Your task to perform on an android device: Open calendar and show me the second week of next month Image 0: 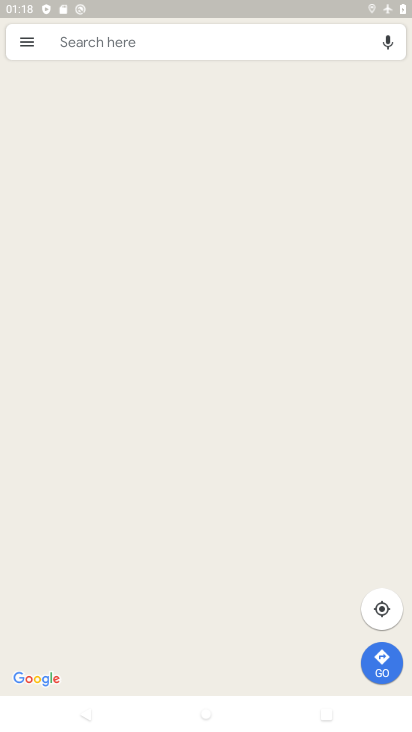
Step 0: press home button
Your task to perform on an android device: Open calendar and show me the second week of next month Image 1: 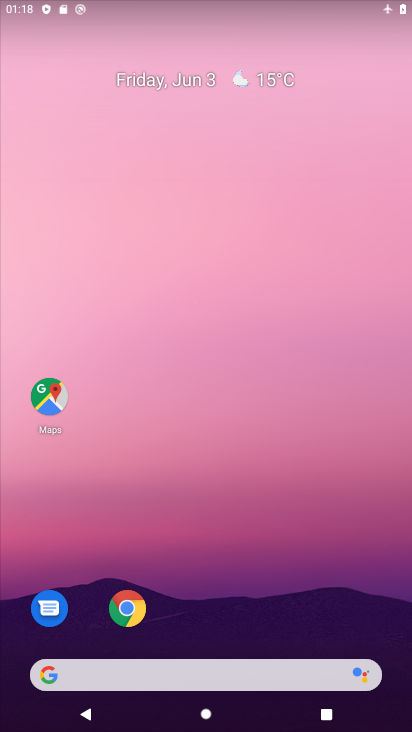
Step 1: drag from (286, 563) to (176, 93)
Your task to perform on an android device: Open calendar and show me the second week of next month Image 2: 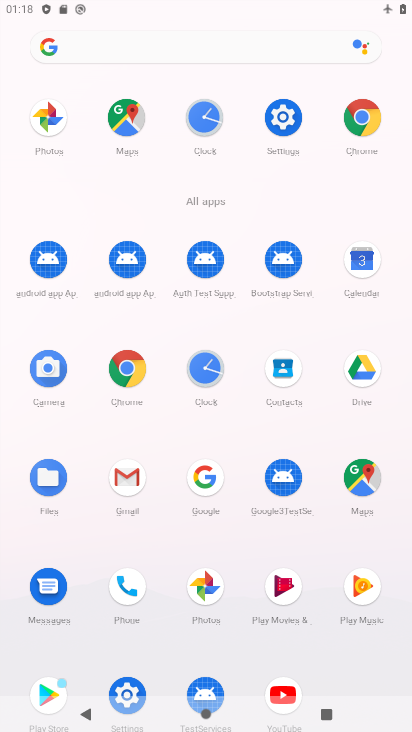
Step 2: click (365, 262)
Your task to perform on an android device: Open calendar and show me the second week of next month Image 3: 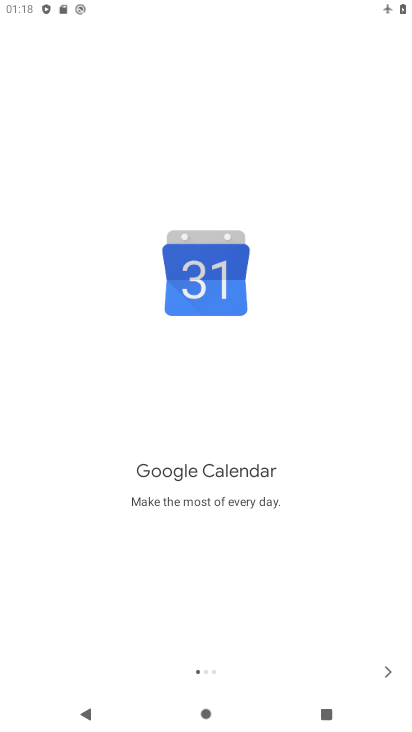
Step 3: click (377, 671)
Your task to perform on an android device: Open calendar and show me the second week of next month Image 4: 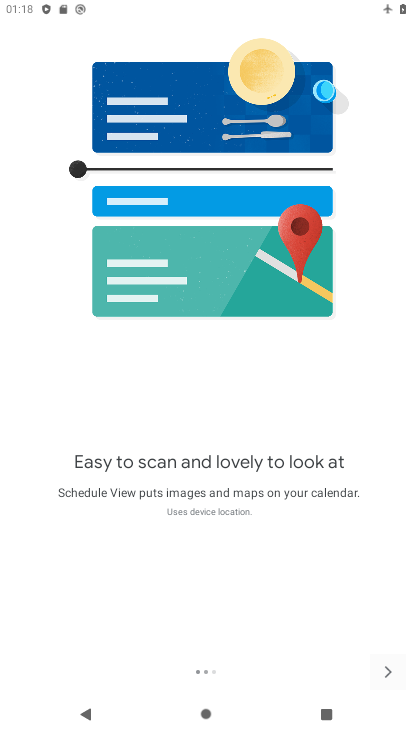
Step 4: click (377, 671)
Your task to perform on an android device: Open calendar and show me the second week of next month Image 5: 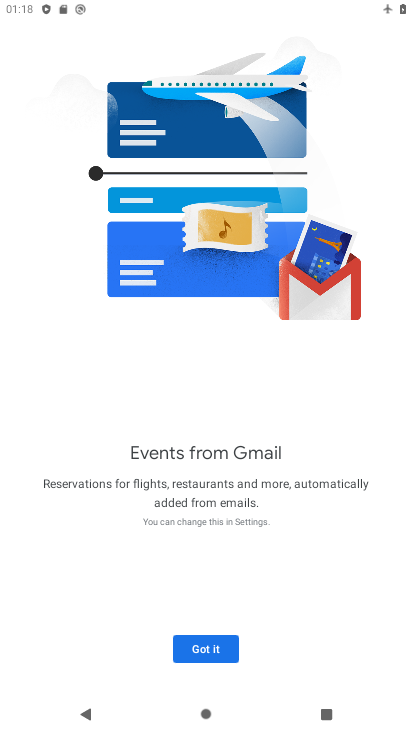
Step 5: click (209, 639)
Your task to perform on an android device: Open calendar and show me the second week of next month Image 6: 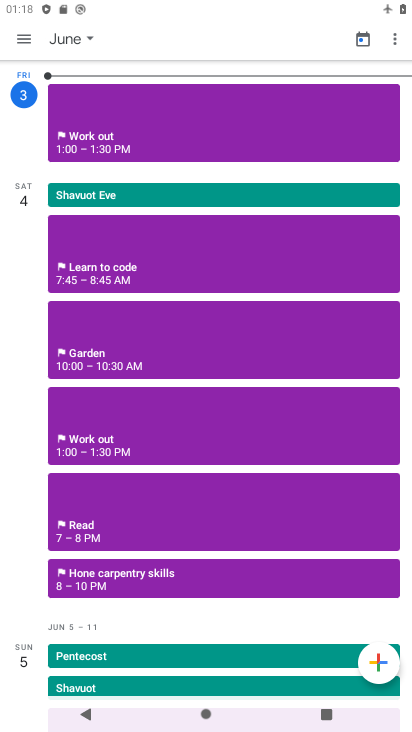
Step 6: click (87, 35)
Your task to perform on an android device: Open calendar and show me the second week of next month Image 7: 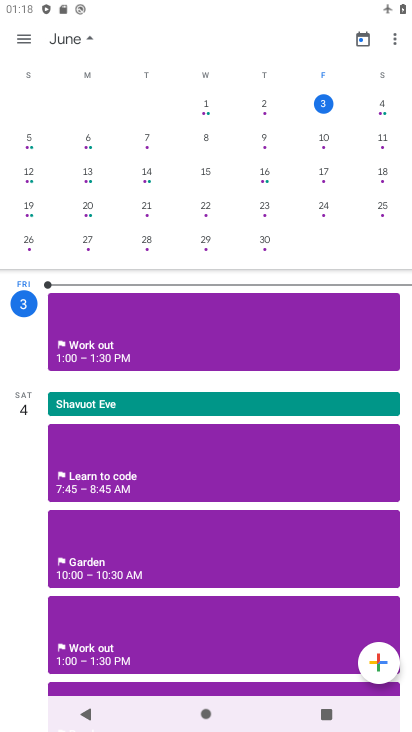
Step 7: drag from (370, 206) to (52, 168)
Your task to perform on an android device: Open calendar and show me the second week of next month Image 8: 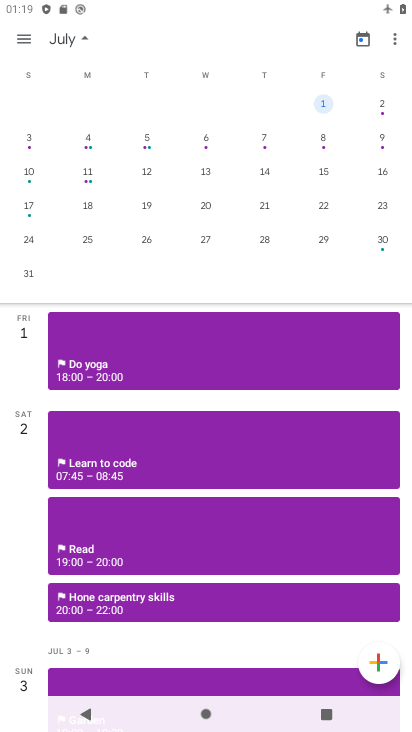
Step 8: click (27, 174)
Your task to perform on an android device: Open calendar and show me the second week of next month Image 9: 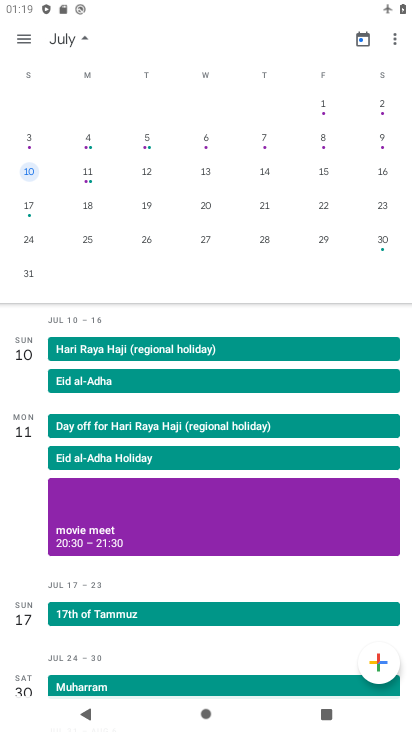
Step 9: click (27, 36)
Your task to perform on an android device: Open calendar and show me the second week of next month Image 10: 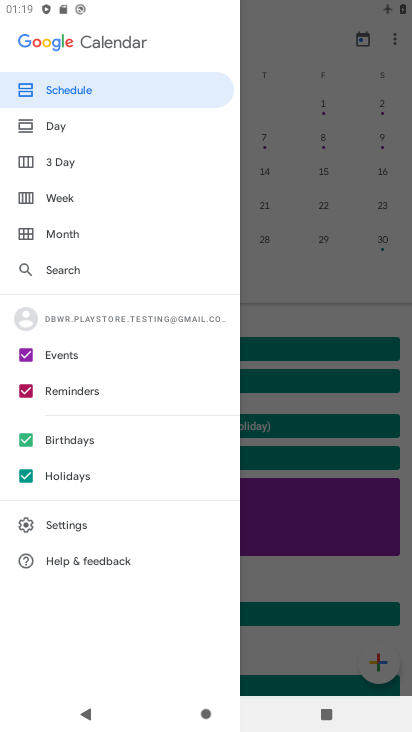
Step 10: click (65, 200)
Your task to perform on an android device: Open calendar and show me the second week of next month Image 11: 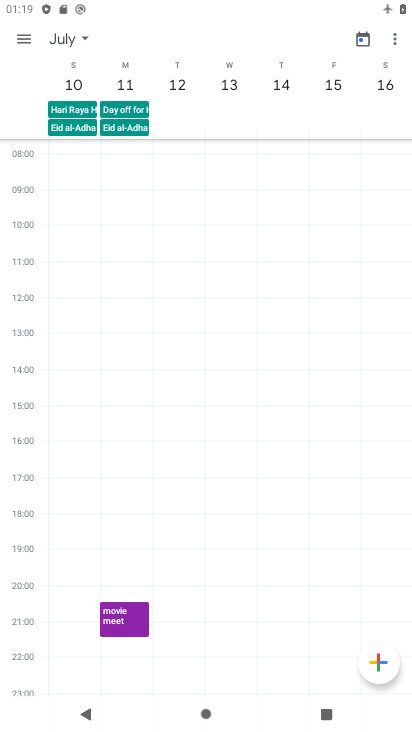
Step 11: task complete